Your task to perform on an android device: turn off priority inbox in the gmail app Image 0: 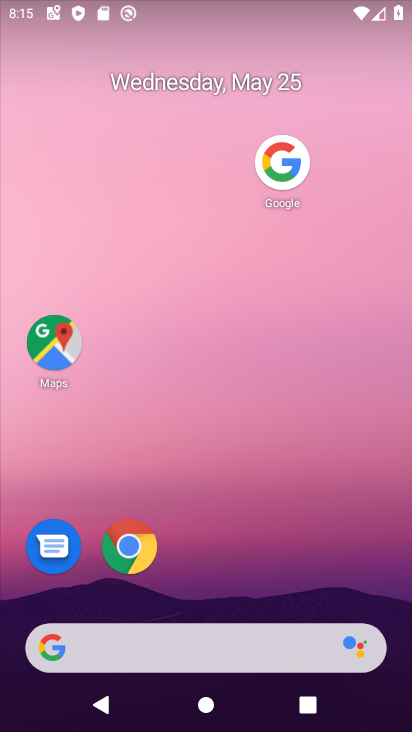
Step 0: press home button
Your task to perform on an android device: turn off priority inbox in the gmail app Image 1: 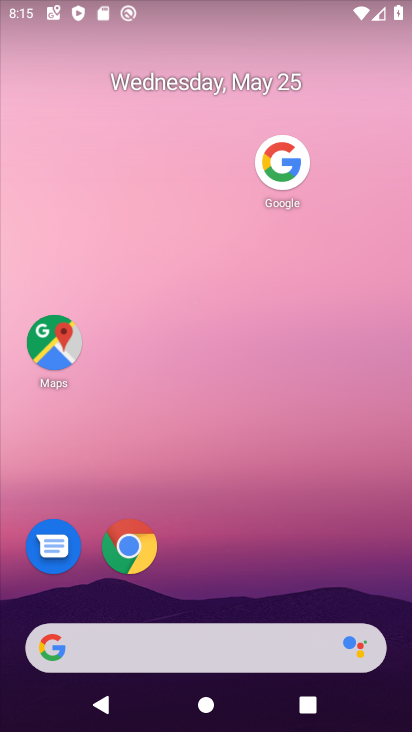
Step 1: drag from (179, 639) to (330, 166)
Your task to perform on an android device: turn off priority inbox in the gmail app Image 2: 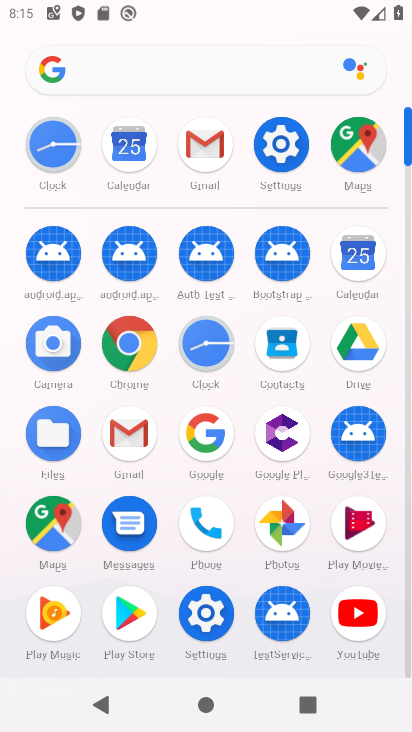
Step 2: click (206, 163)
Your task to perform on an android device: turn off priority inbox in the gmail app Image 3: 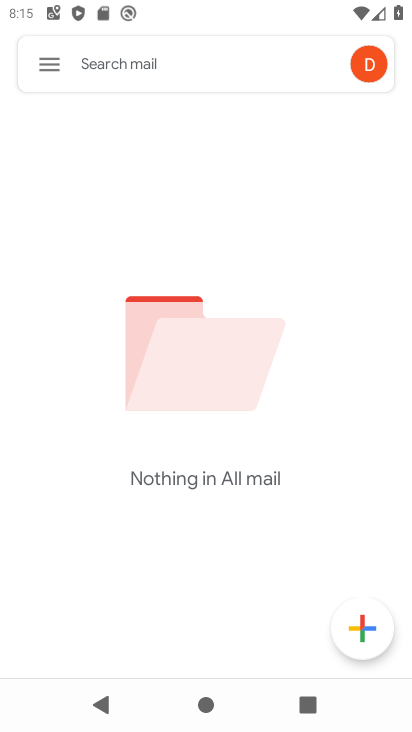
Step 3: click (46, 62)
Your task to perform on an android device: turn off priority inbox in the gmail app Image 4: 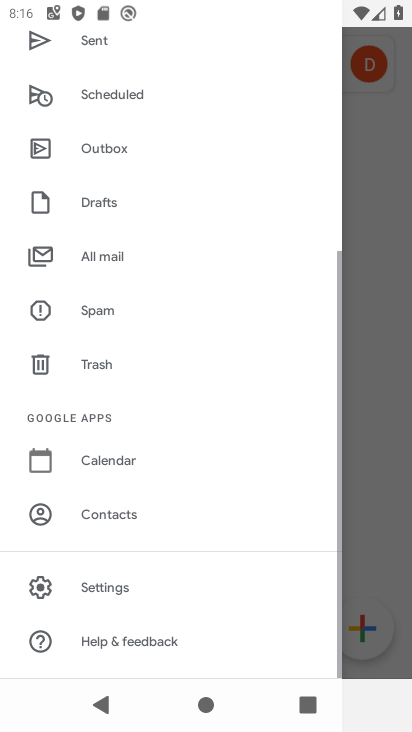
Step 4: click (107, 576)
Your task to perform on an android device: turn off priority inbox in the gmail app Image 5: 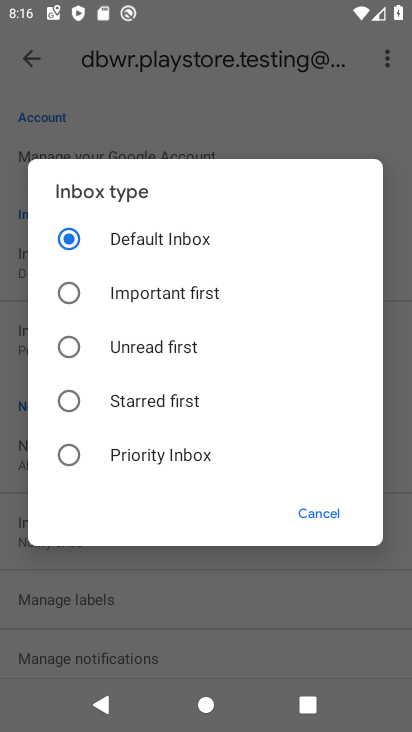
Step 5: task complete